Your task to perform on an android device: Open Google Chrome Image 0: 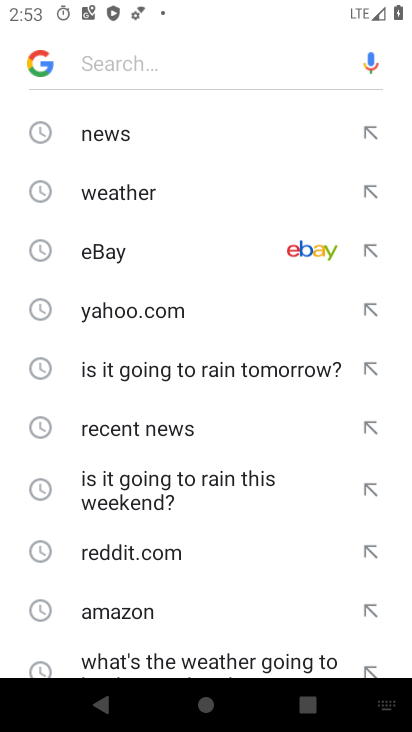
Step 0: press home button
Your task to perform on an android device: Open Google Chrome Image 1: 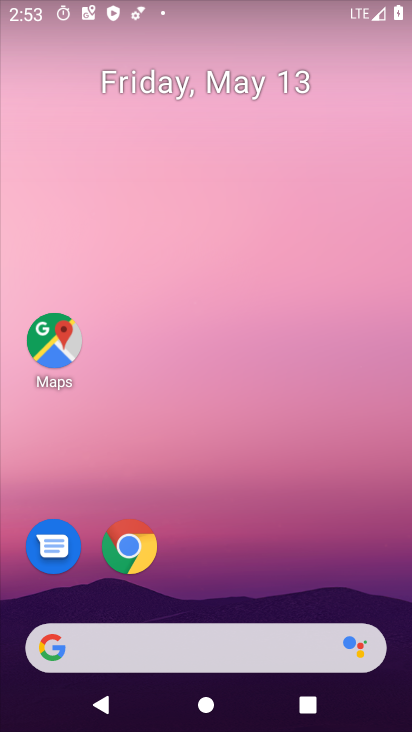
Step 1: drag from (197, 618) to (271, 228)
Your task to perform on an android device: Open Google Chrome Image 2: 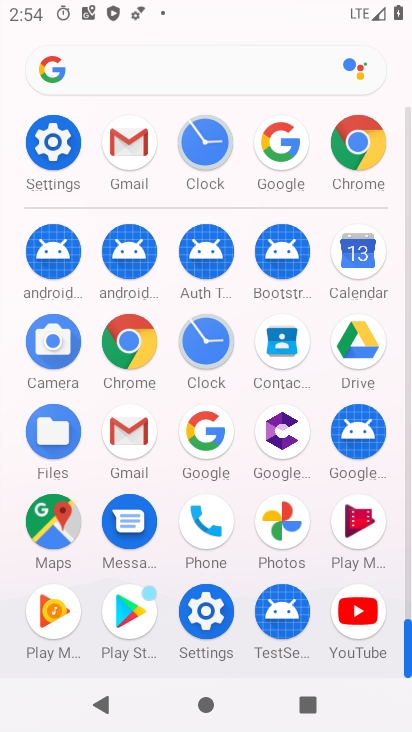
Step 2: click (352, 185)
Your task to perform on an android device: Open Google Chrome Image 3: 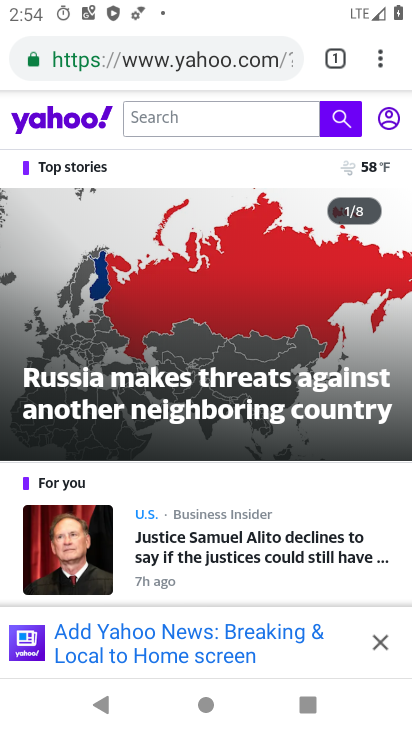
Step 3: task complete